Your task to perform on an android device: Open Google Chrome and click the shortcut for Amazon.com Image 0: 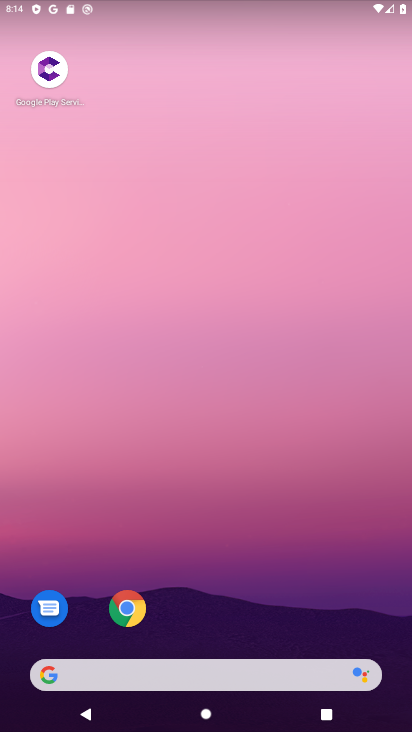
Step 0: click (125, 586)
Your task to perform on an android device: Open Google Chrome and click the shortcut for Amazon.com Image 1: 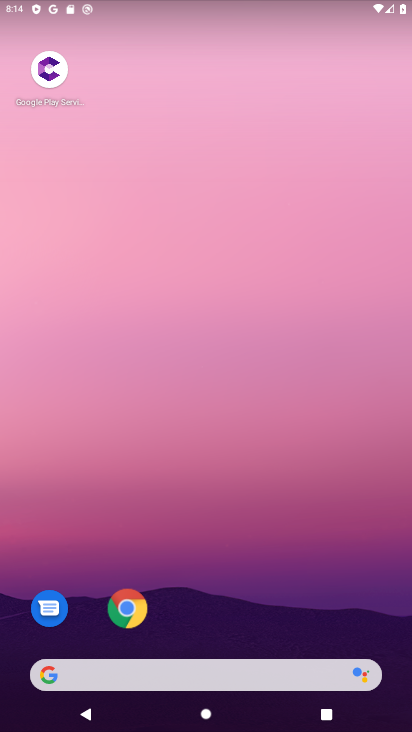
Step 1: click (124, 603)
Your task to perform on an android device: Open Google Chrome and click the shortcut for Amazon.com Image 2: 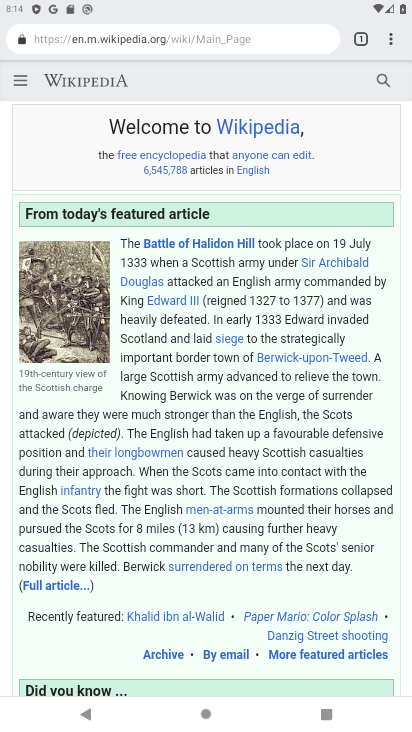
Step 2: press home button
Your task to perform on an android device: Open Google Chrome and click the shortcut for Amazon.com Image 3: 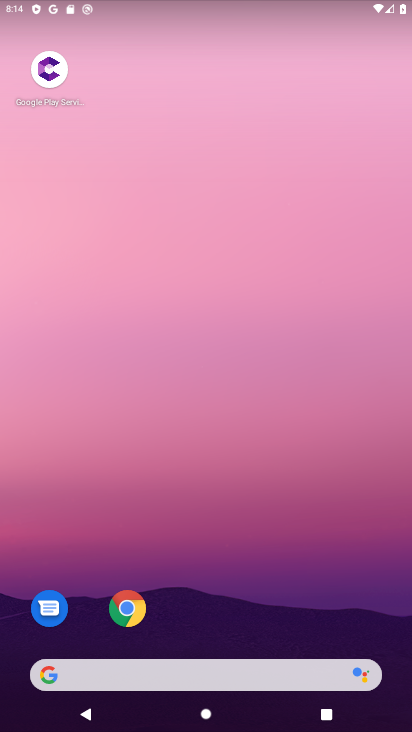
Step 3: click (142, 605)
Your task to perform on an android device: Open Google Chrome and click the shortcut for Amazon.com Image 4: 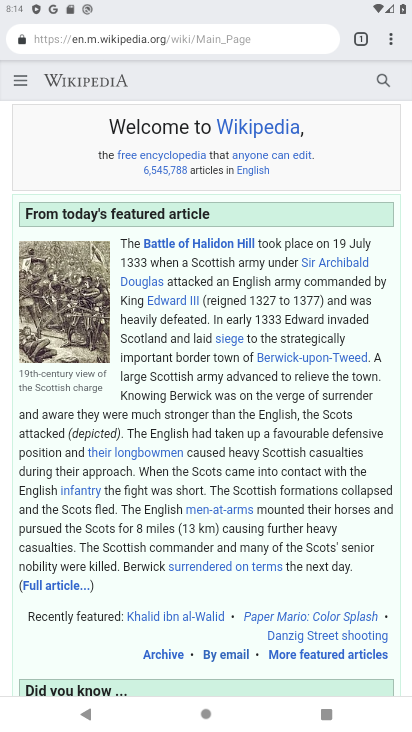
Step 4: click (73, 37)
Your task to perform on an android device: Open Google Chrome and click the shortcut for Amazon.com Image 5: 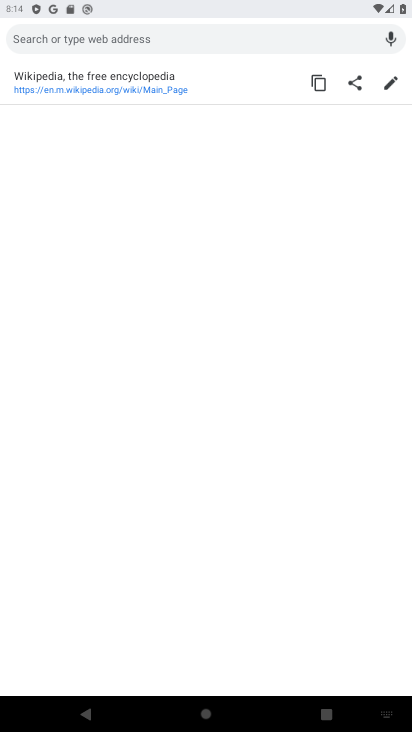
Step 5: click (31, 38)
Your task to perform on an android device: Open Google Chrome and click the shortcut for Amazon.com Image 6: 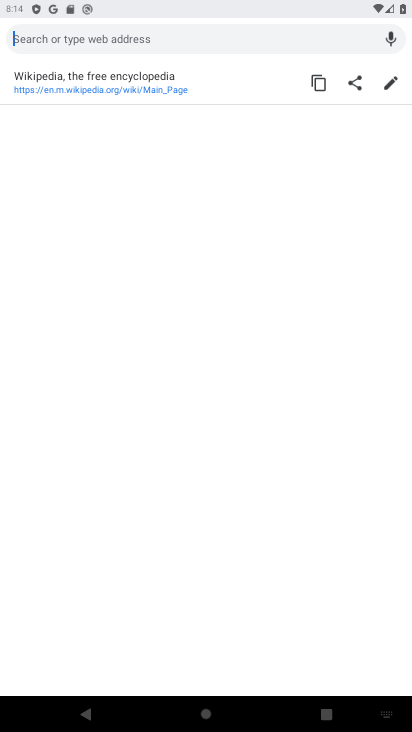
Step 6: task complete